Your task to perform on an android device: check android version Image 0: 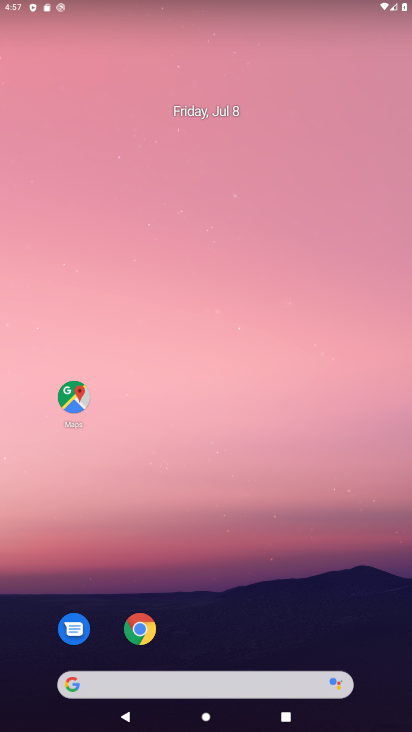
Step 0: drag from (236, 633) to (246, 10)
Your task to perform on an android device: check android version Image 1: 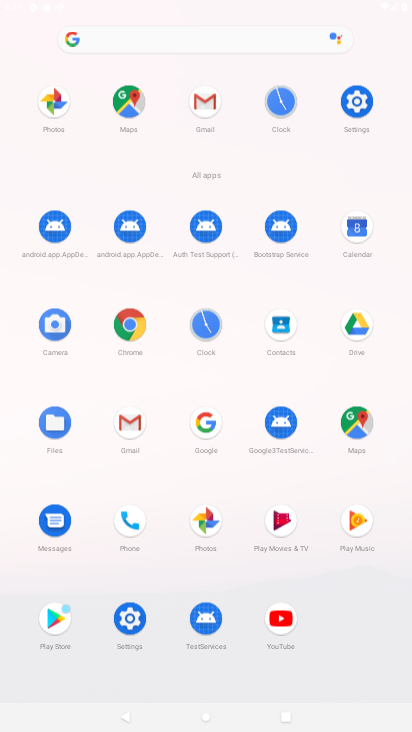
Step 1: click (355, 134)
Your task to perform on an android device: check android version Image 2: 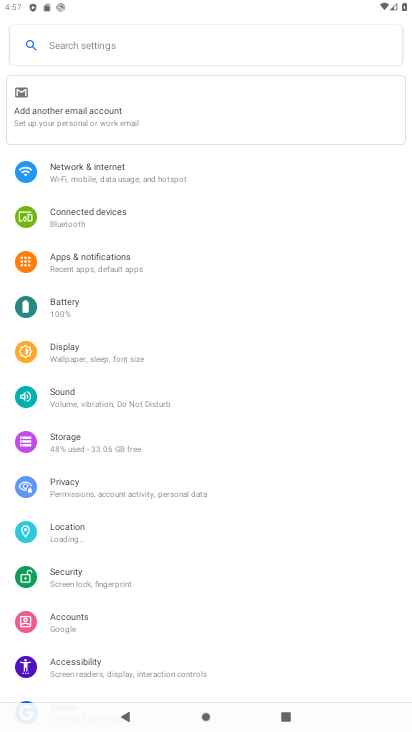
Step 2: drag from (248, 616) to (255, 93)
Your task to perform on an android device: check android version Image 3: 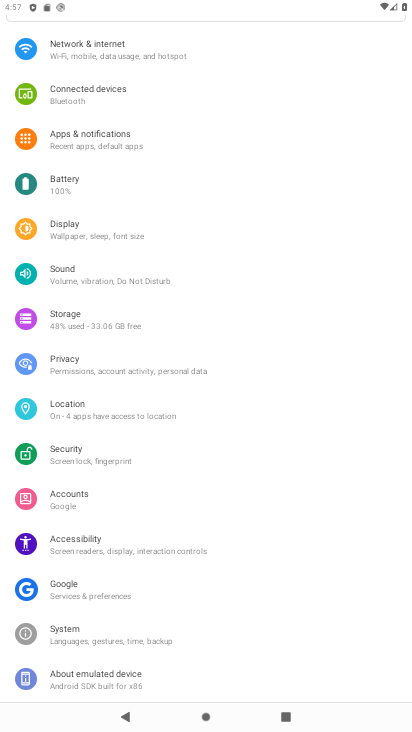
Step 3: click (109, 681)
Your task to perform on an android device: check android version Image 4: 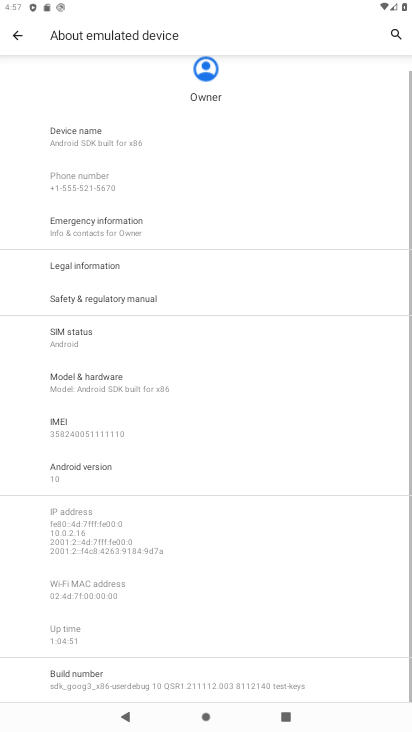
Step 4: task complete